Your task to perform on an android device: Open Maps and search for coffee Image 0: 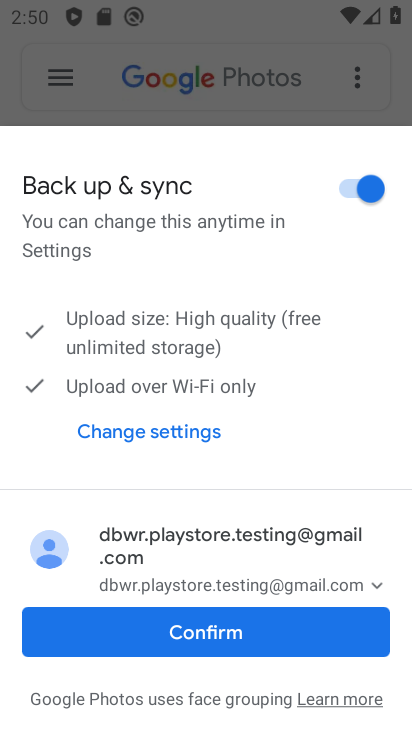
Step 0: press back button
Your task to perform on an android device: Open Maps and search for coffee Image 1: 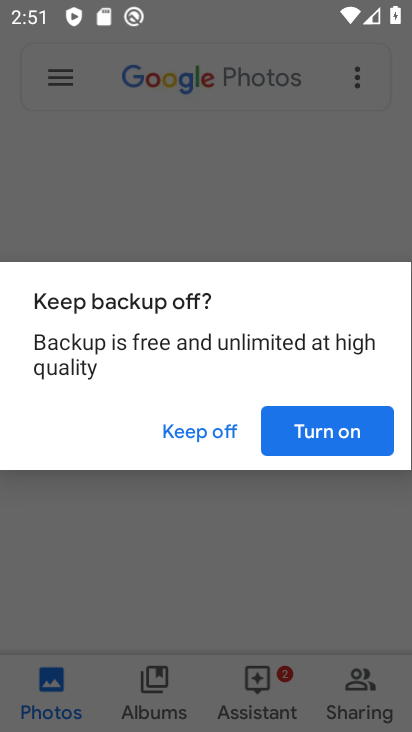
Step 1: press back button
Your task to perform on an android device: Open Maps and search for coffee Image 2: 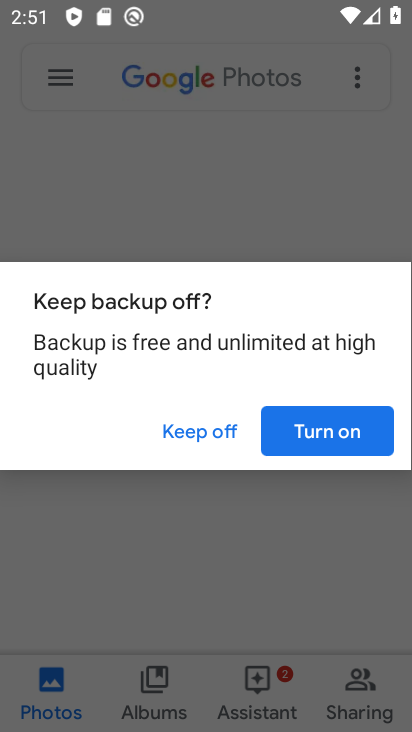
Step 2: press back button
Your task to perform on an android device: Open Maps and search for coffee Image 3: 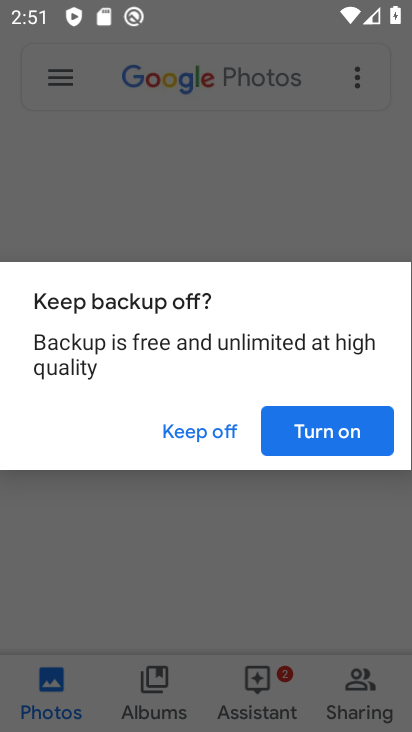
Step 3: press home button
Your task to perform on an android device: Open Maps and search for coffee Image 4: 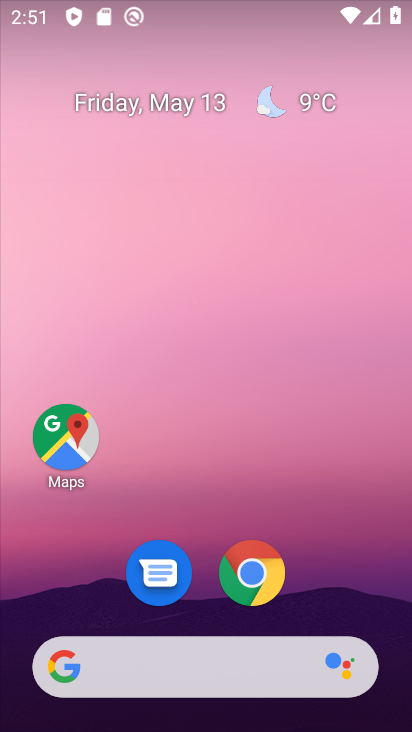
Step 4: click (62, 438)
Your task to perform on an android device: Open Maps and search for coffee Image 5: 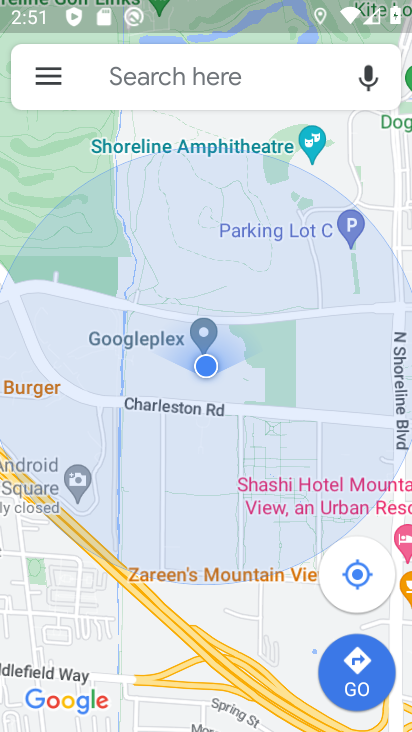
Step 5: click (169, 70)
Your task to perform on an android device: Open Maps and search for coffee Image 6: 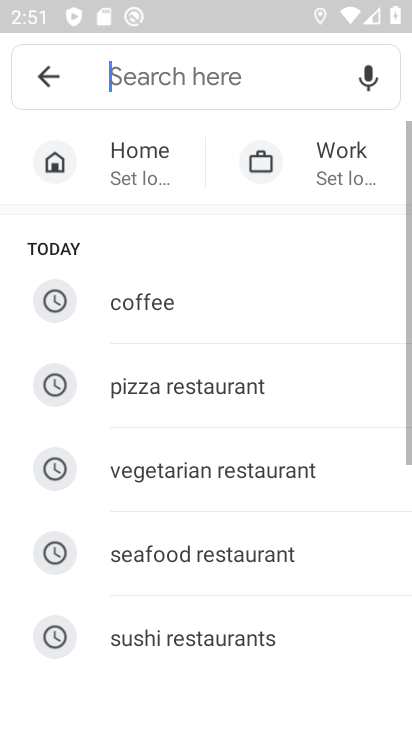
Step 6: click (132, 305)
Your task to perform on an android device: Open Maps and search for coffee Image 7: 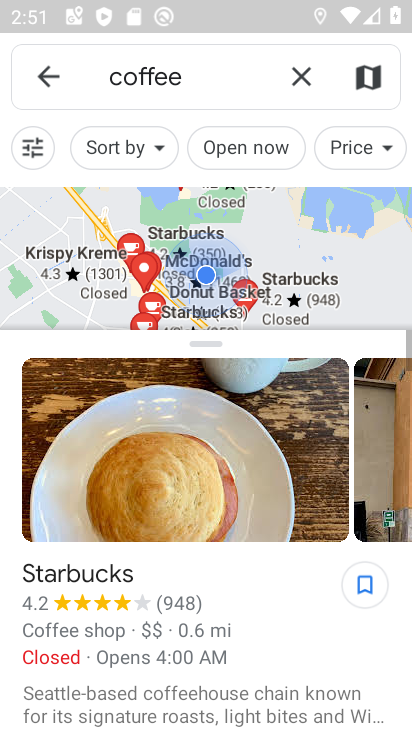
Step 7: task complete